Your task to perform on an android device: turn on data saver in the chrome app Image 0: 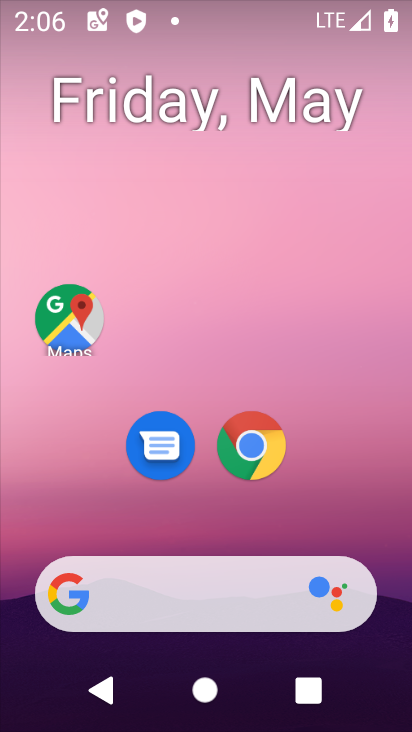
Step 0: press home button
Your task to perform on an android device: turn on data saver in the chrome app Image 1: 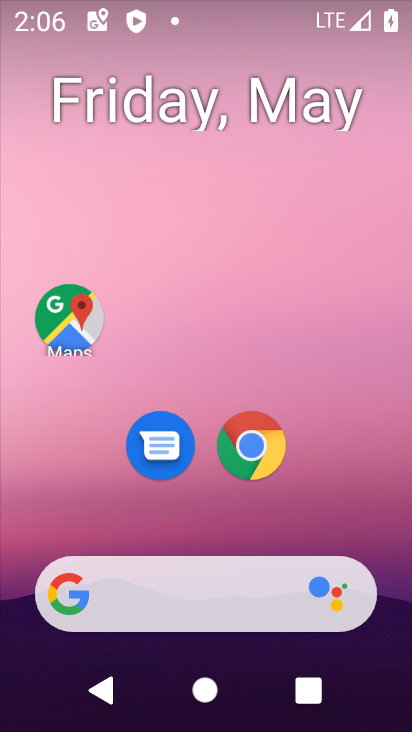
Step 1: click (252, 444)
Your task to perform on an android device: turn on data saver in the chrome app Image 2: 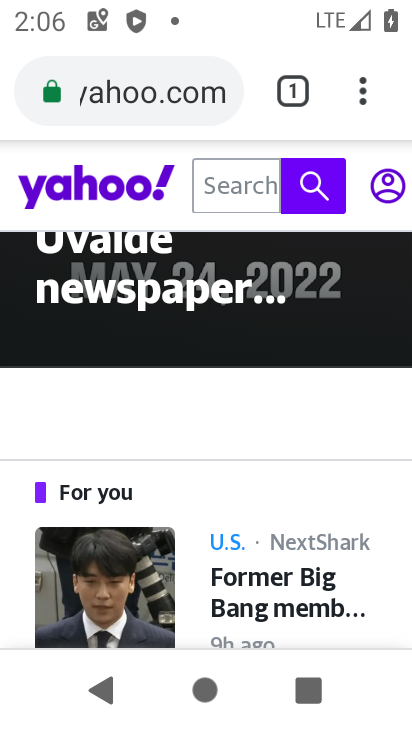
Step 2: click (359, 90)
Your task to perform on an android device: turn on data saver in the chrome app Image 3: 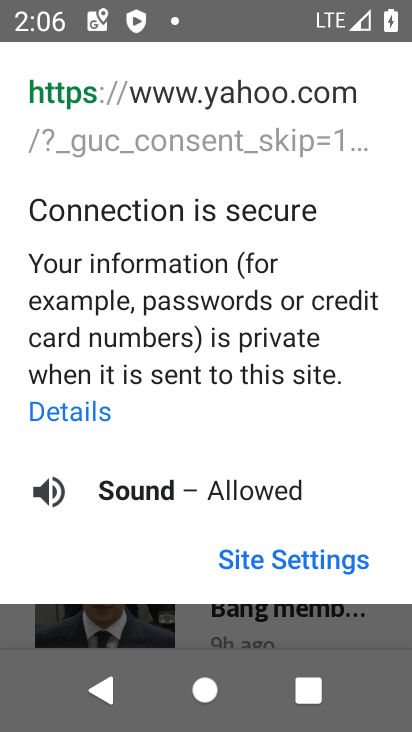
Step 3: click (141, 642)
Your task to perform on an android device: turn on data saver in the chrome app Image 4: 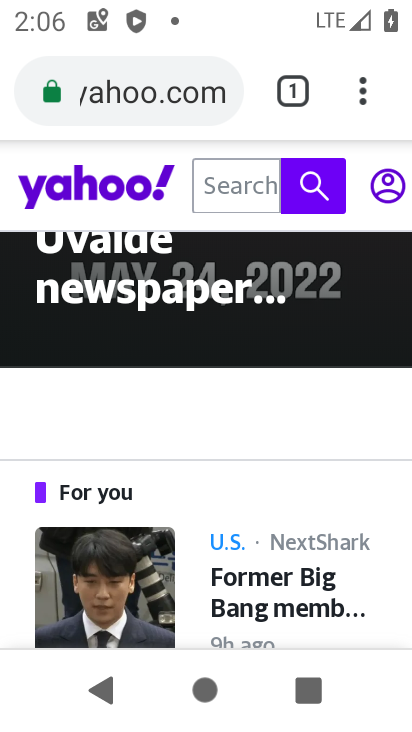
Step 4: click (366, 79)
Your task to perform on an android device: turn on data saver in the chrome app Image 5: 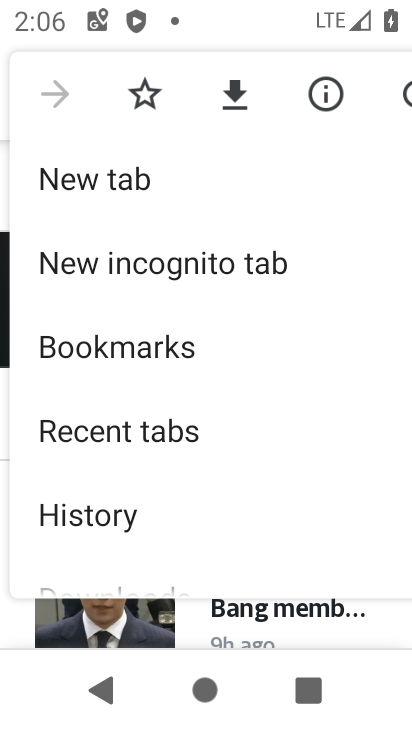
Step 5: drag from (181, 525) to (171, 138)
Your task to perform on an android device: turn on data saver in the chrome app Image 6: 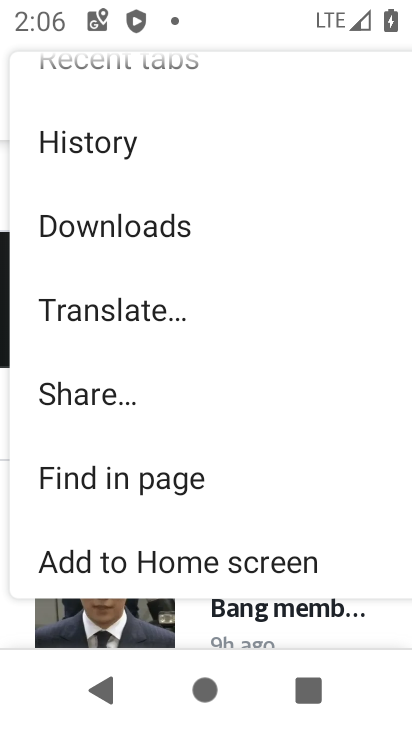
Step 6: drag from (191, 504) to (211, 37)
Your task to perform on an android device: turn on data saver in the chrome app Image 7: 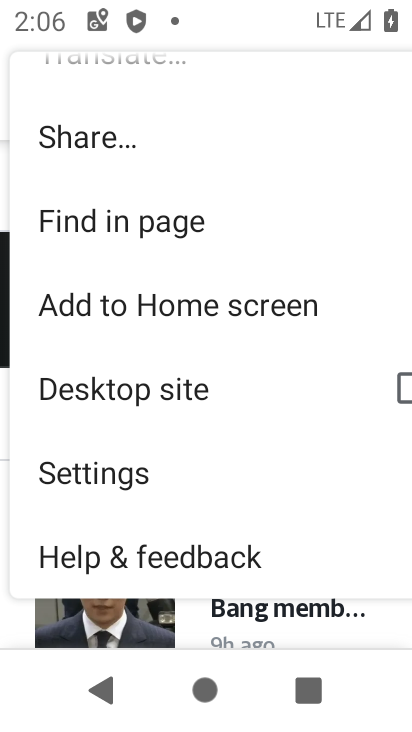
Step 7: click (164, 476)
Your task to perform on an android device: turn on data saver in the chrome app Image 8: 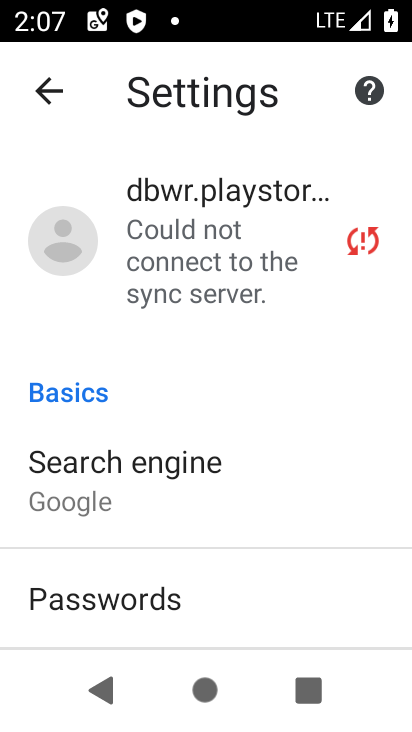
Step 8: drag from (220, 577) to (225, 213)
Your task to perform on an android device: turn on data saver in the chrome app Image 9: 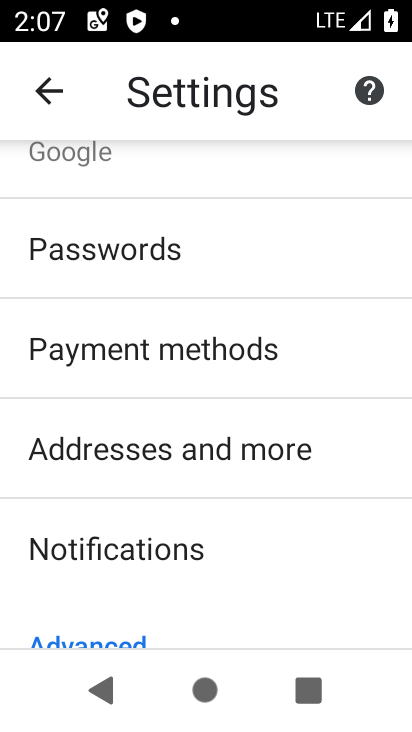
Step 9: drag from (200, 600) to (212, 259)
Your task to perform on an android device: turn on data saver in the chrome app Image 10: 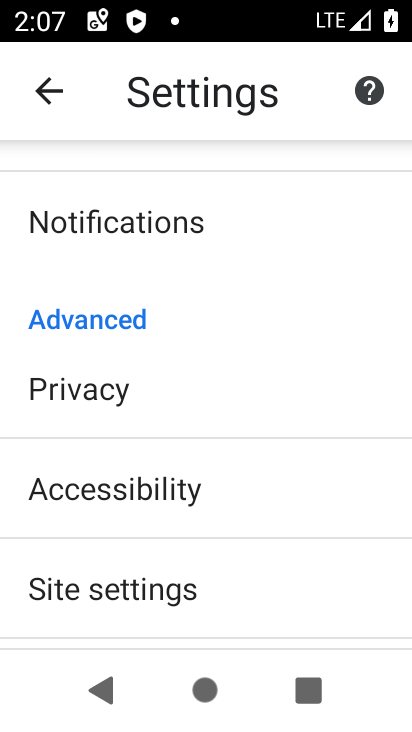
Step 10: drag from (226, 589) to (228, 219)
Your task to perform on an android device: turn on data saver in the chrome app Image 11: 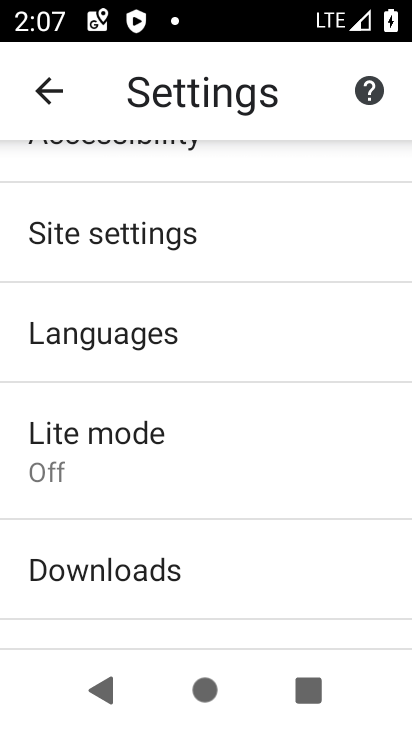
Step 11: click (142, 462)
Your task to perform on an android device: turn on data saver in the chrome app Image 12: 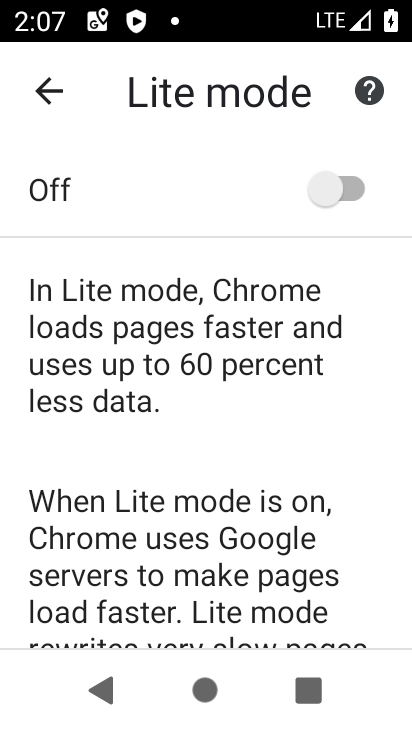
Step 12: click (342, 189)
Your task to perform on an android device: turn on data saver in the chrome app Image 13: 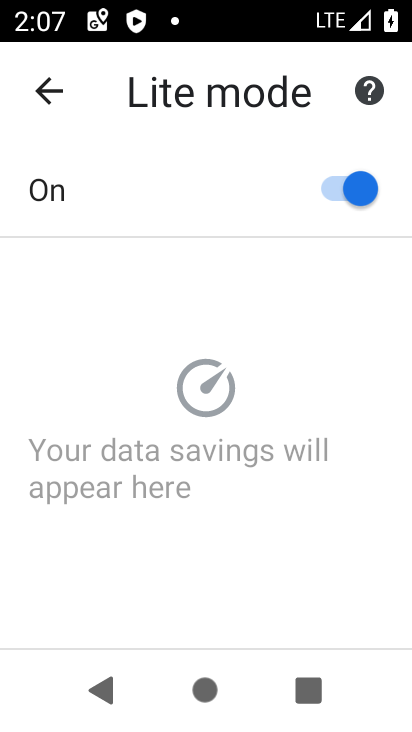
Step 13: task complete